Your task to perform on an android device: add a contact Image 0: 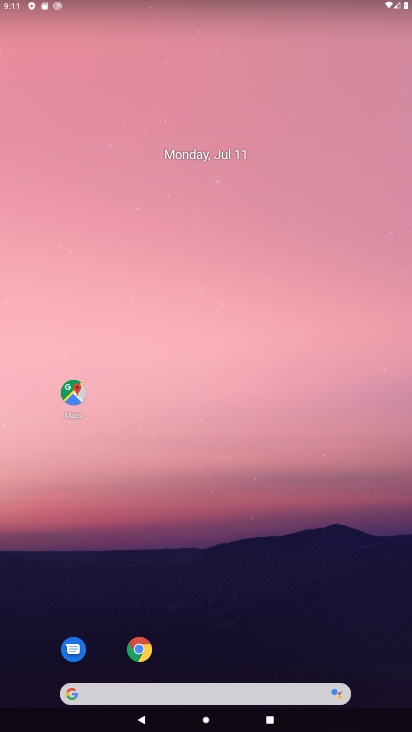
Step 0: drag from (155, 682) to (245, 168)
Your task to perform on an android device: add a contact Image 1: 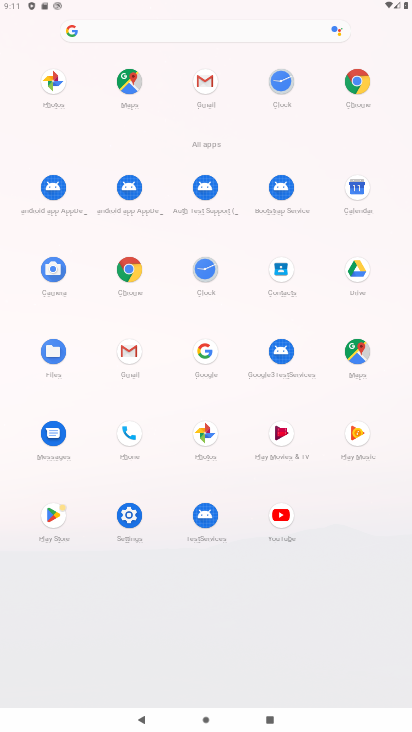
Step 1: click (285, 275)
Your task to perform on an android device: add a contact Image 2: 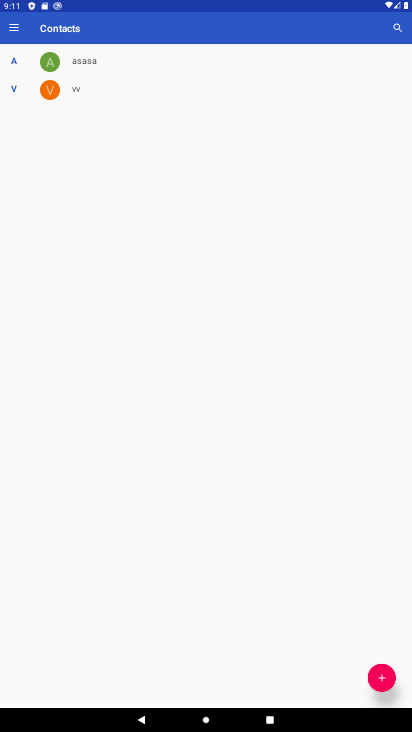
Step 2: click (382, 677)
Your task to perform on an android device: add a contact Image 3: 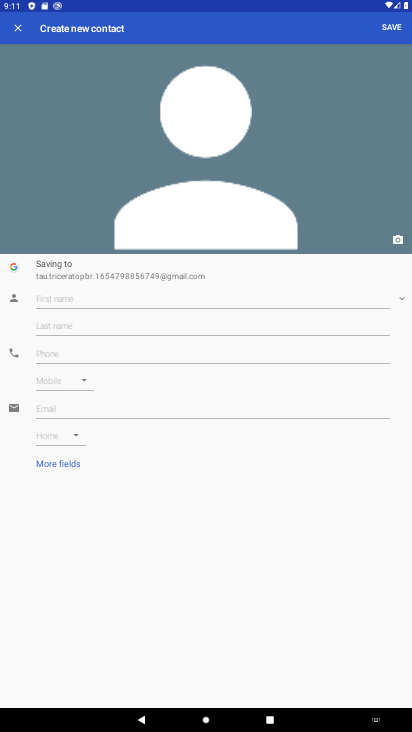
Step 3: click (76, 298)
Your task to perform on an android device: add a contact Image 4: 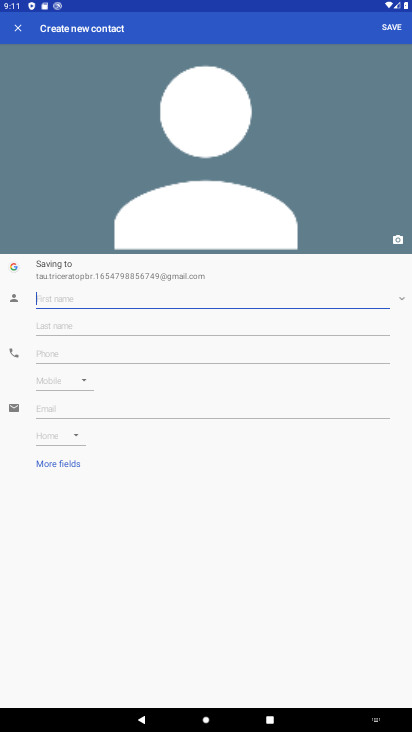
Step 4: type "yoko "
Your task to perform on an android device: add a contact Image 5: 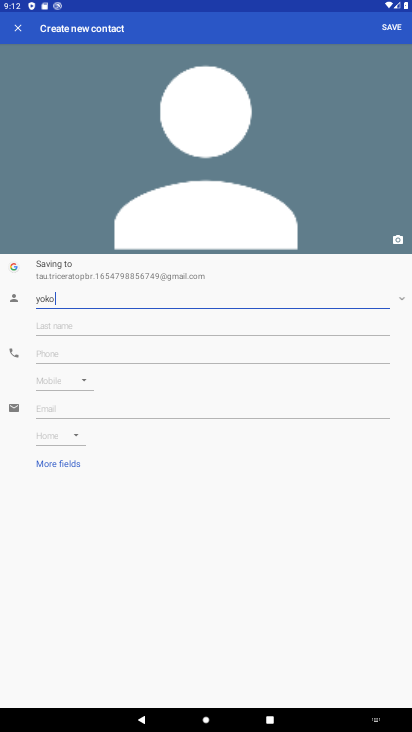
Step 5: click (79, 355)
Your task to perform on an android device: add a contact Image 6: 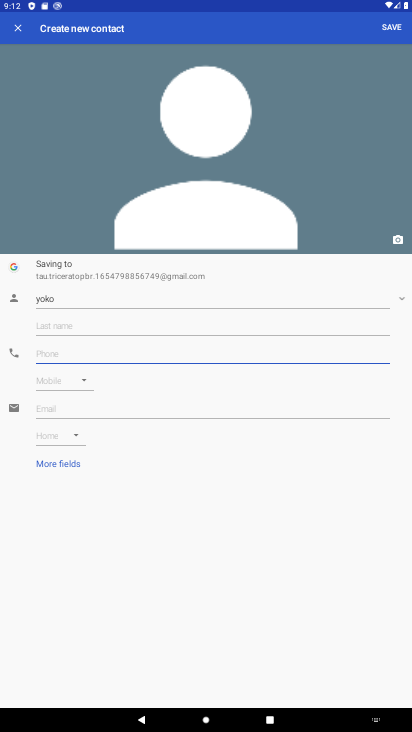
Step 6: type "98989978"
Your task to perform on an android device: add a contact Image 7: 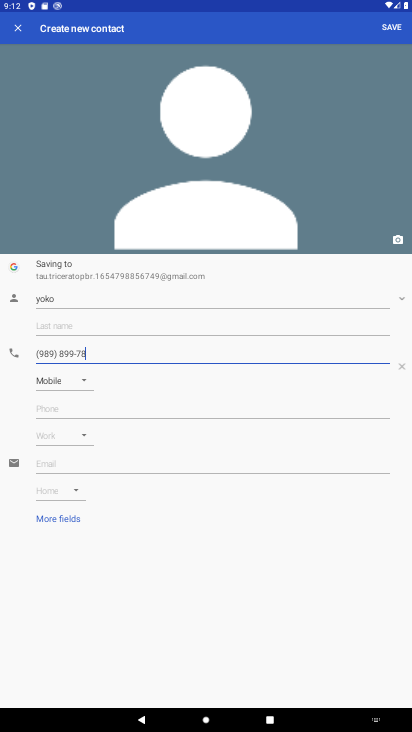
Step 7: click (398, 25)
Your task to perform on an android device: add a contact Image 8: 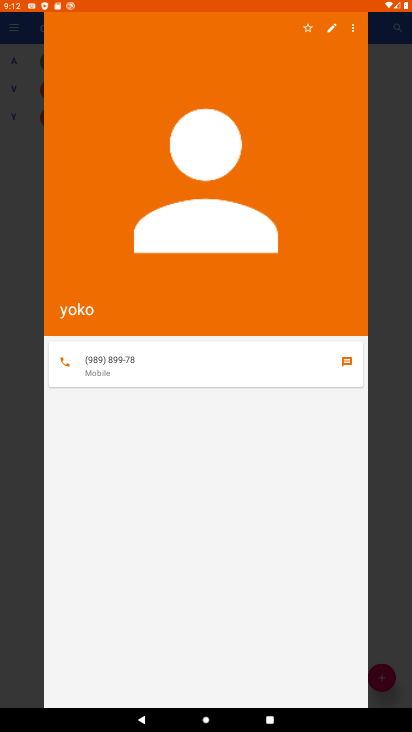
Step 8: task complete